Your task to perform on an android device: Search for the most popular books on Goodreads Image 0: 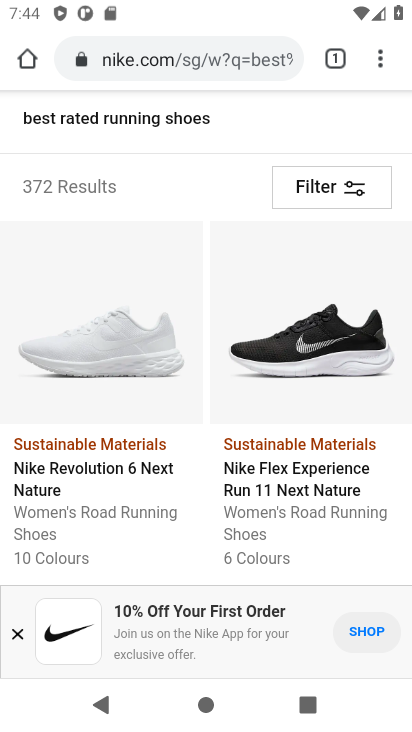
Step 0: click (217, 75)
Your task to perform on an android device: Search for the most popular books on Goodreads Image 1: 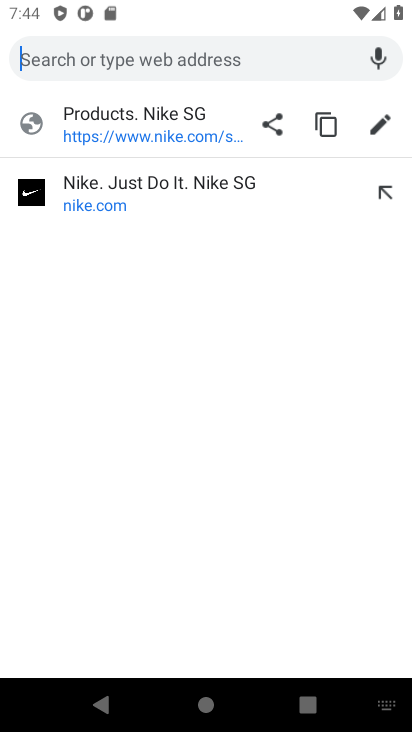
Step 1: type "Goodreads"
Your task to perform on an android device: Search for the most popular books on Goodreads Image 2: 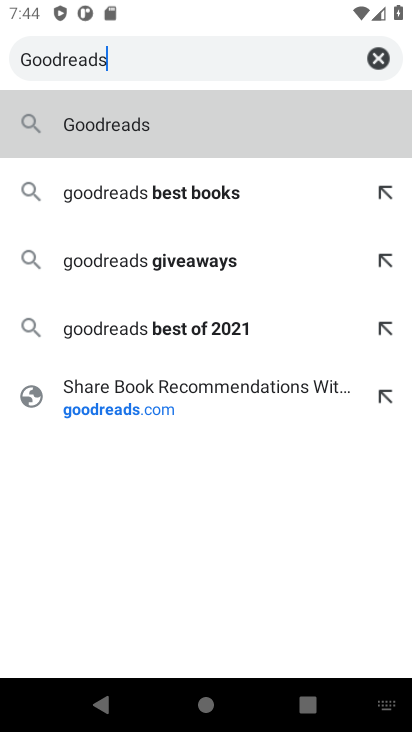
Step 2: click (111, 125)
Your task to perform on an android device: Search for the most popular books on Goodreads Image 3: 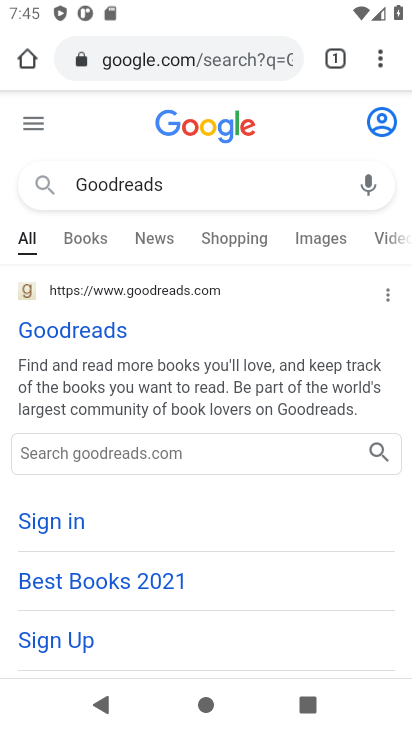
Step 3: click (53, 331)
Your task to perform on an android device: Search for the most popular books on Goodreads Image 4: 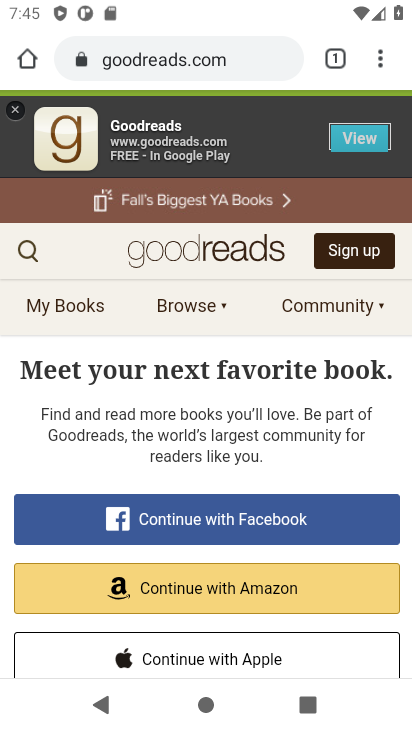
Step 4: click (31, 250)
Your task to perform on an android device: Search for the most popular books on Goodreads Image 5: 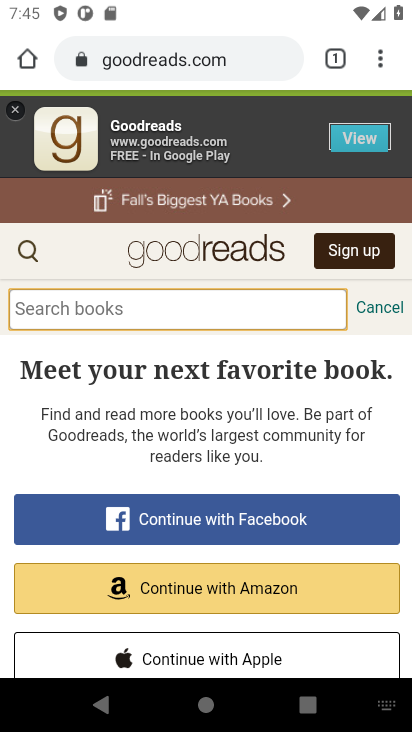
Step 5: type "most popular books "
Your task to perform on an android device: Search for the most popular books on Goodreads Image 6: 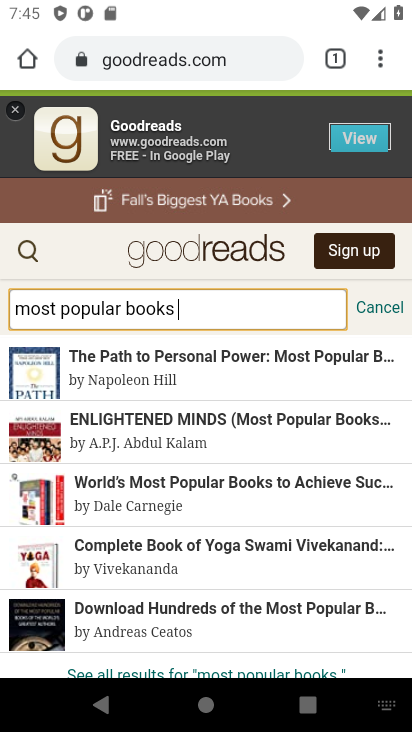
Step 6: task complete